Your task to perform on an android device: turn on airplane mode Image 0: 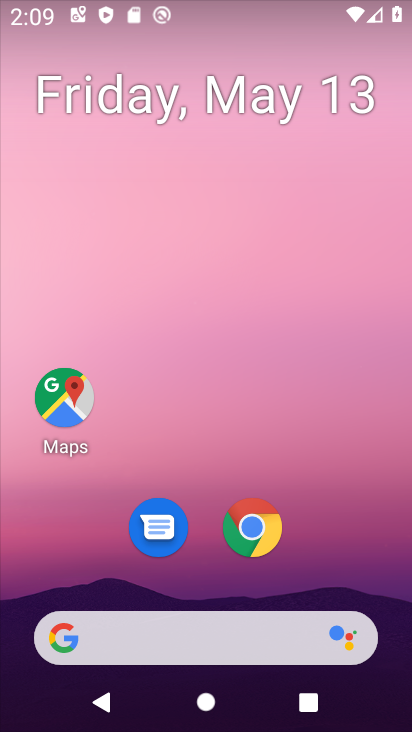
Step 0: drag from (153, 694) to (237, 49)
Your task to perform on an android device: turn on airplane mode Image 1: 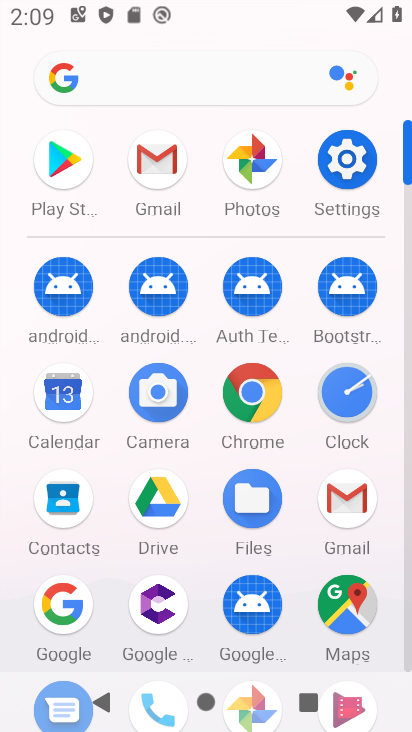
Step 1: drag from (211, 11) to (235, 728)
Your task to perform on an android device: turn on airplane mode Image 2: 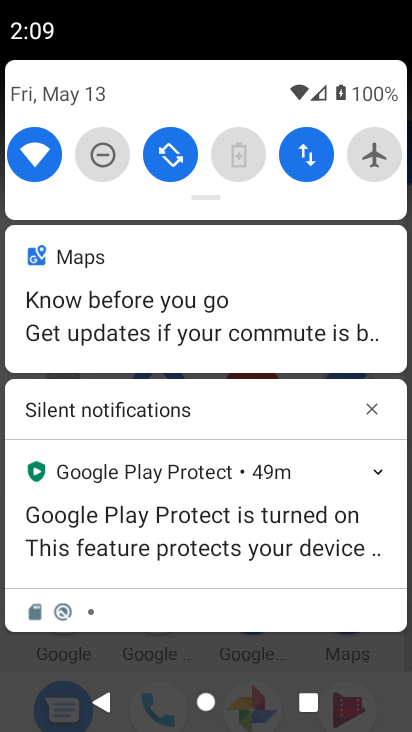
Step 2: click (388, 156)
Your task to perform on an android device: turn on airplane mode Image 3: 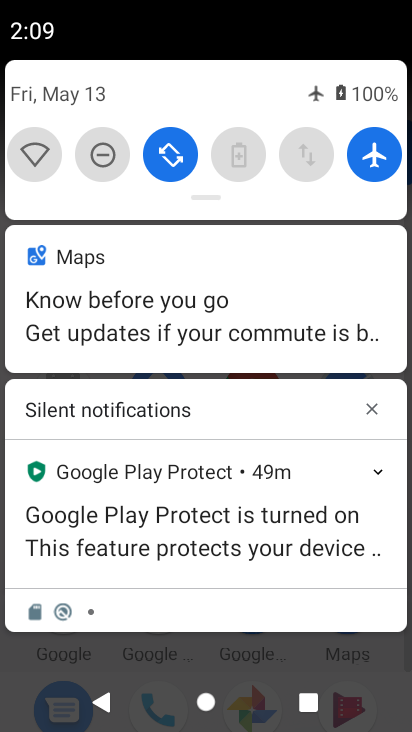
Step 3: task complete